Your task to perform on an android device: stop showing notifications on the lock screen Image 0: 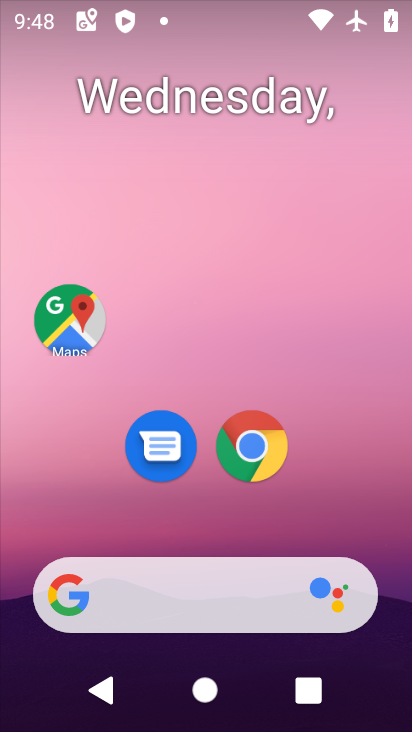
Step 0: press home button
Your task to perform on an android device: stop showing notifications on the lock screen Image 1: 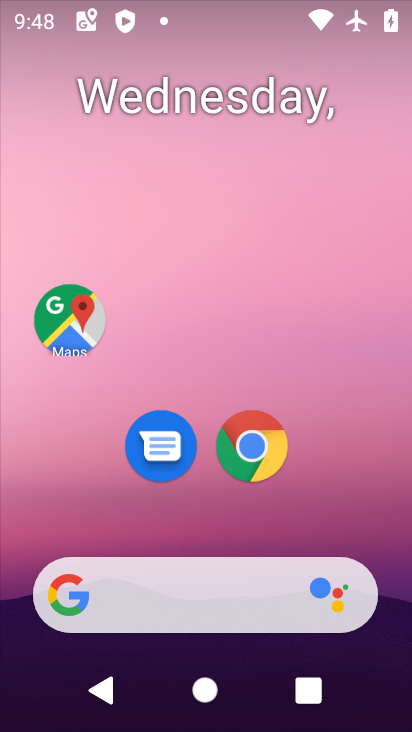
Step 1: drag from (158, 597) to (271, 165)
Your task to perform on an android device: stop showing notifications on the lock screen Image 2: 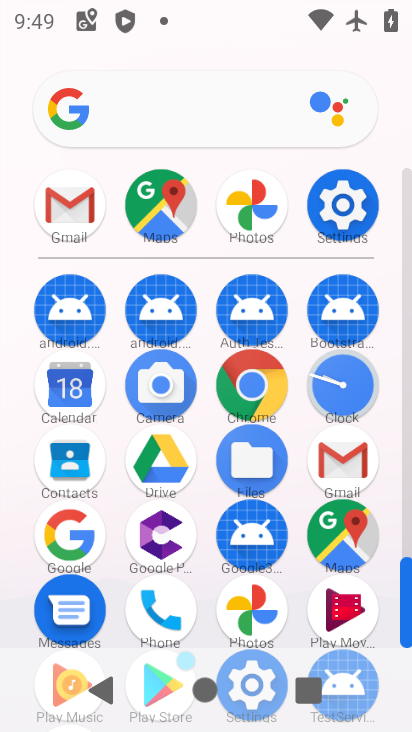
Step 2: click (346, 205)
Your task to perform on an android device: stop showing notifications on the lock screen Image 3: 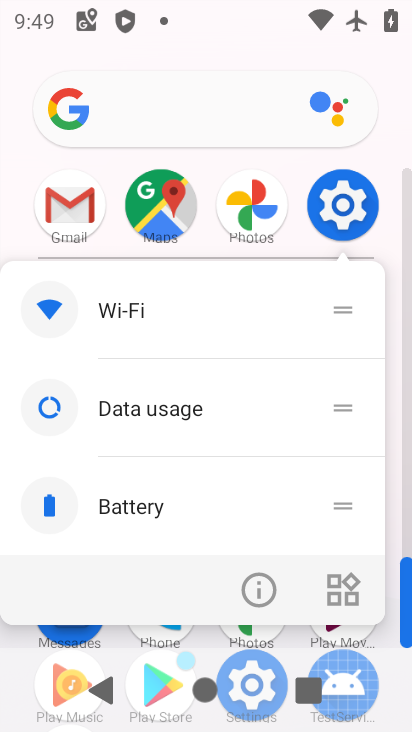
Step 3: click (340, 215)
Your task to perform on an android device: stop showing notifications on the lock screen Image 4: 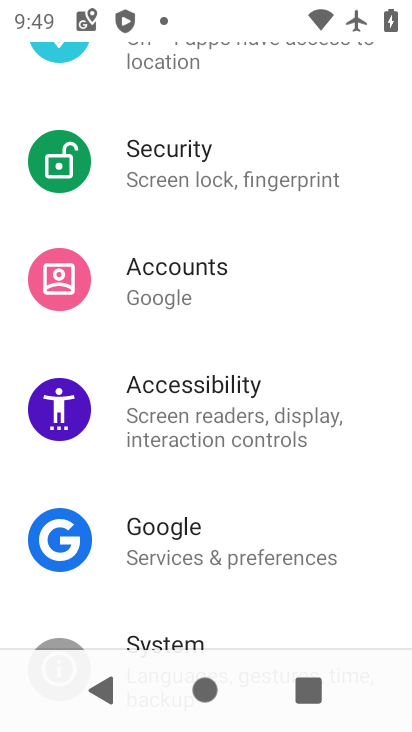
Step 4: drag from (243, 540) to (260, 101)
Your task to perform on an android device: stop showing notifications on the lock screen Image 5: 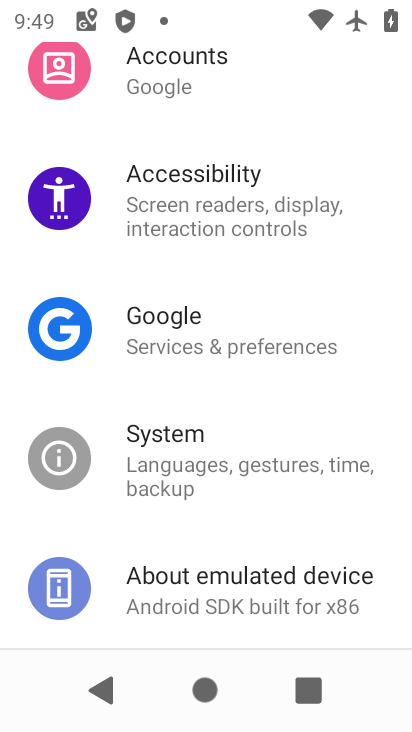
Step 5: drag from (310, 118) to (314, 599)
Your task to perform on an android device: stop showing notifications on the lock screen Image 6: 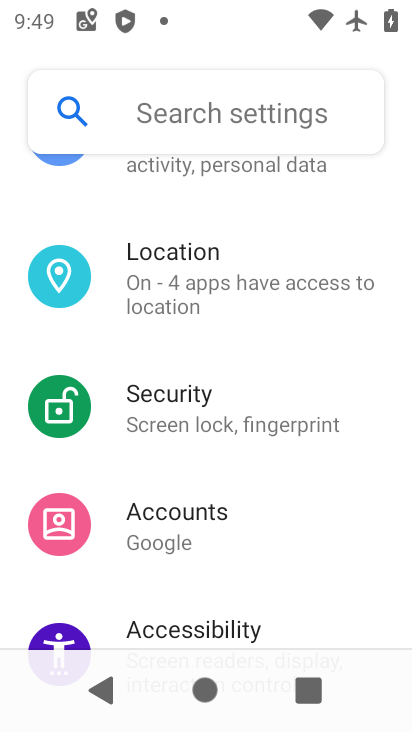
Step 6: drag from (292, 235) to (299, 544)
Your task to perform on an android device: stop showing notifications on the lock screen Image 7: 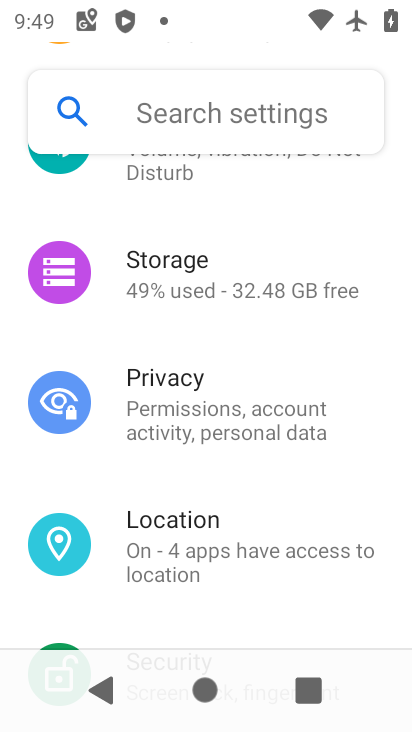
Step 7: drag from (288, 195) to (265, 647)
Your task to perform on an android device: stop showing notifications on the lock screen Image 8: 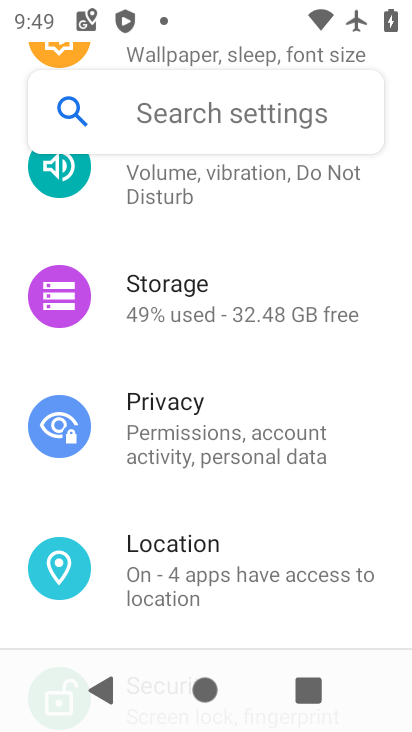
Step 8: drag from (274, 345) to (274, 668)
Your task to perform on an android device: stop showing notifications on the lock screen Image 9: 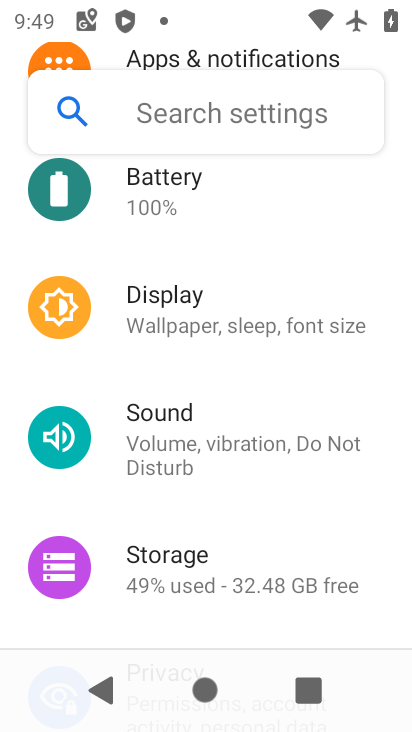
Step 9: drag from (276, 206) to (264, 520)
Your task to perform on an android device: stop showing notifications on the lock screen Image 10: 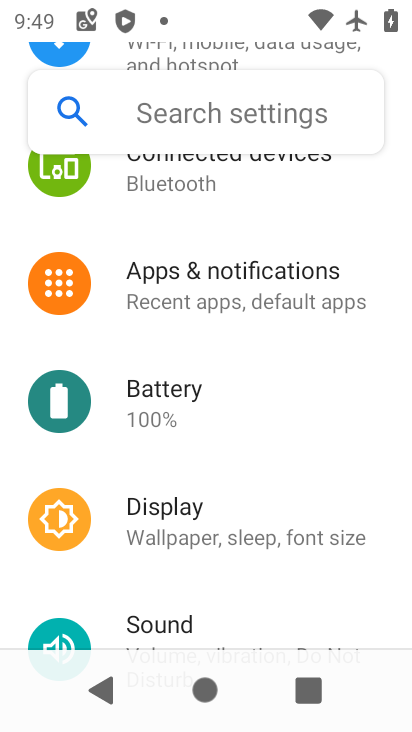
Step 10: click (267, 272)
Your task to perform on an android device: stop showing notifications on the lock screen Image 11: 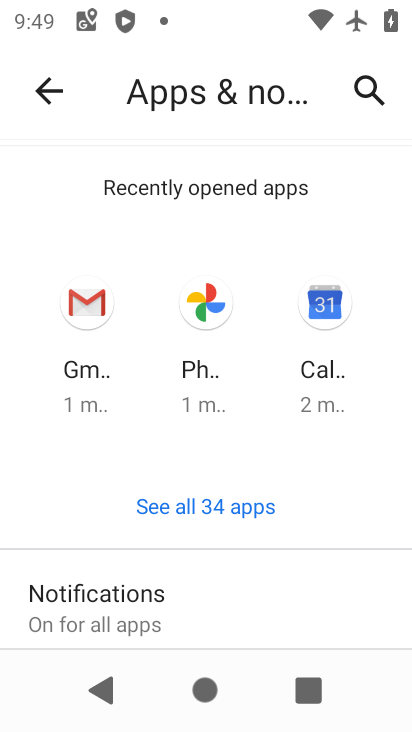
Step 11: drag from (259, 603) to (358, 240)
Your task to perform on an android device: stop showing notifications on the lock screen Image 12: 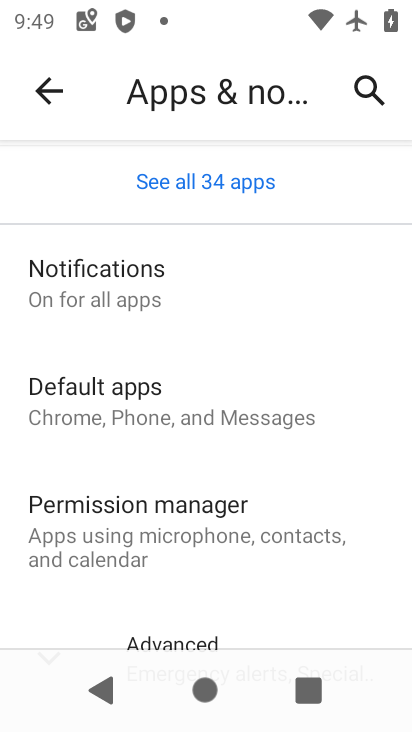
Step 12: click (106, 286)
Your task to perform on an android device: stop showing notifications on the lock screen Image 13: 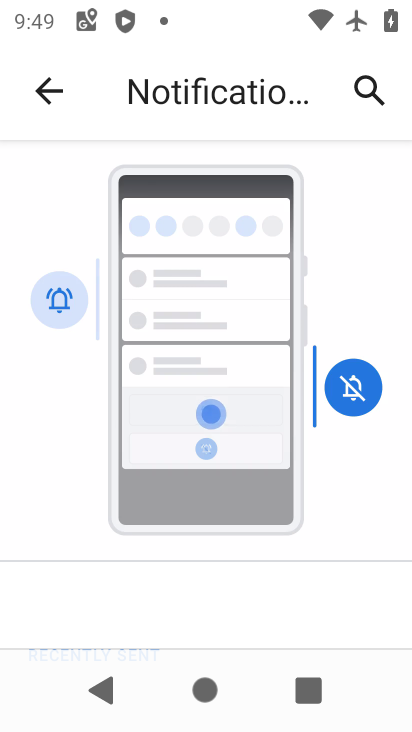
Step 13: drag from (178, 586) to (293, 168)
Your task to perform on an android device: stop showing notifications on the lock screen Image 14: 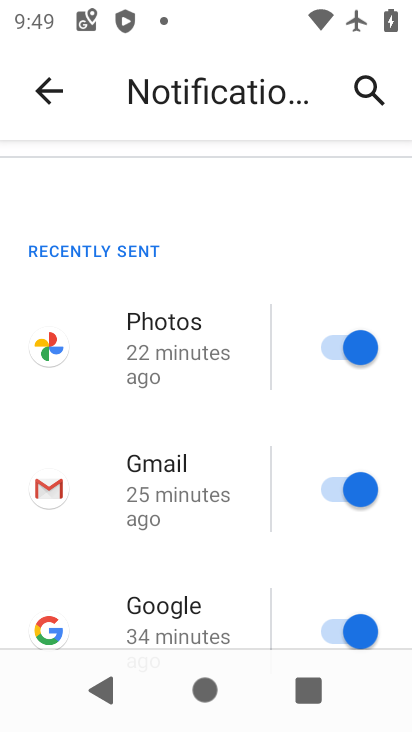
Step 14: drag from (178, 578) to (310, 116)
Your task to perform on an android device: stop showing notifications on the lock screen Image 15: 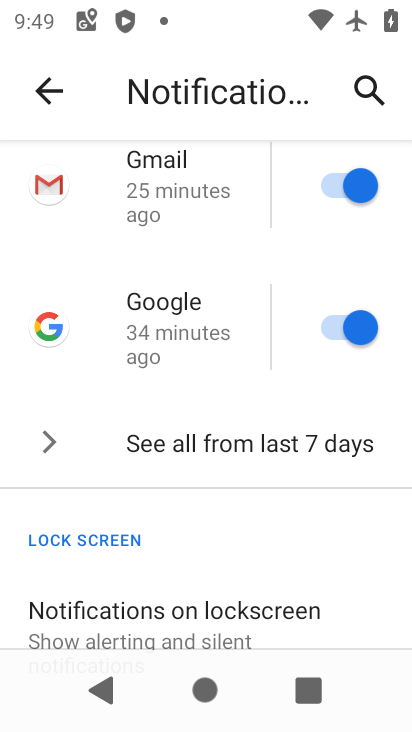
Step 15: drag from (221, 579) to (332, 228)
Your task to perform on an android device: stop showing notifications on the lock screen Image 16: 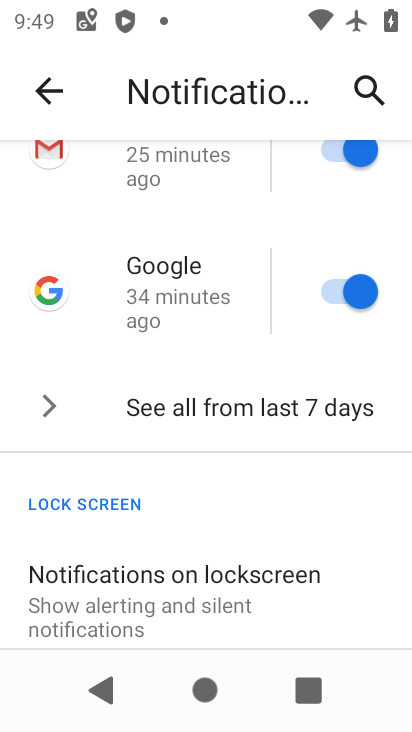
Step 16: click (175, 592)
Your task to perform on an android device: stop showing notifications on the lock screen Image 17: 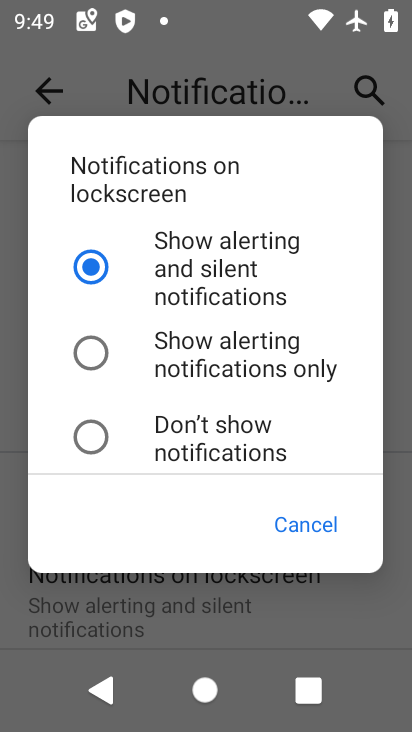
Step 17: click (88, 439)
Your task to perform on an android device: stop showing notifications on the lock screen Image 18: 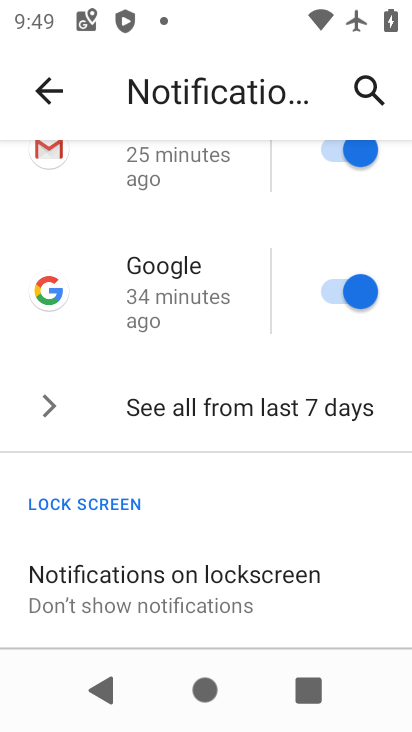
Step 18: task complete